Your task to perform on an android device: Open accessibility settings Image 0: 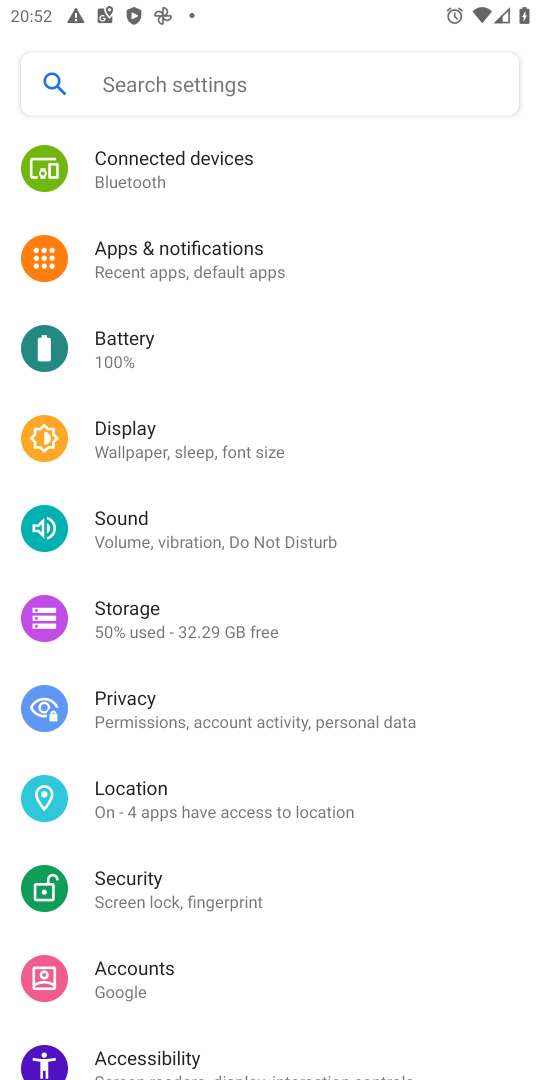
Step 0: press home button
Your task to perform on an android device: Open accessibility settings Image 1: 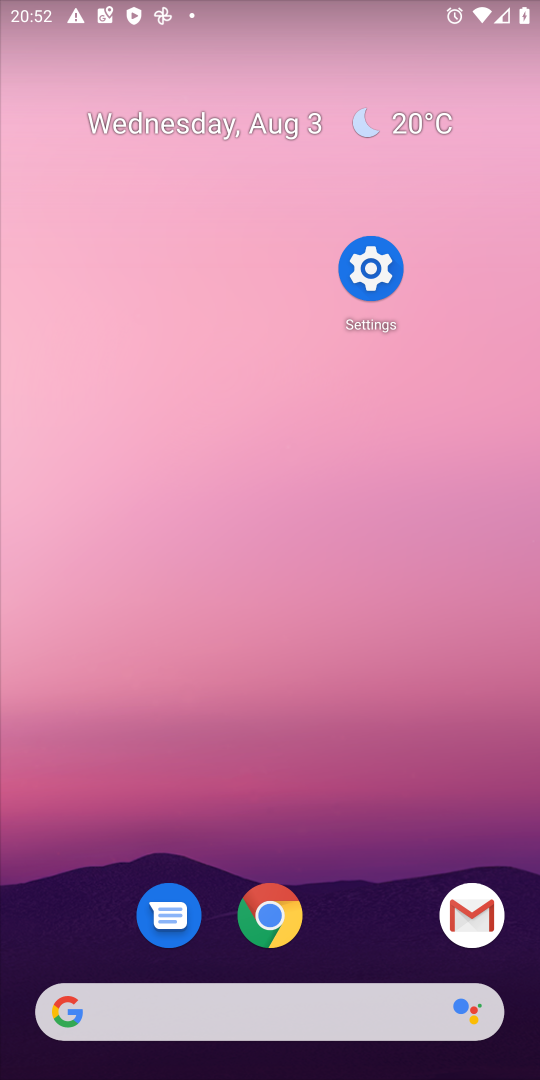
Step 1: drag from (326, 1028) to (345, 167)
Your task to perform on an android device: Open accessibility settings Image 2: 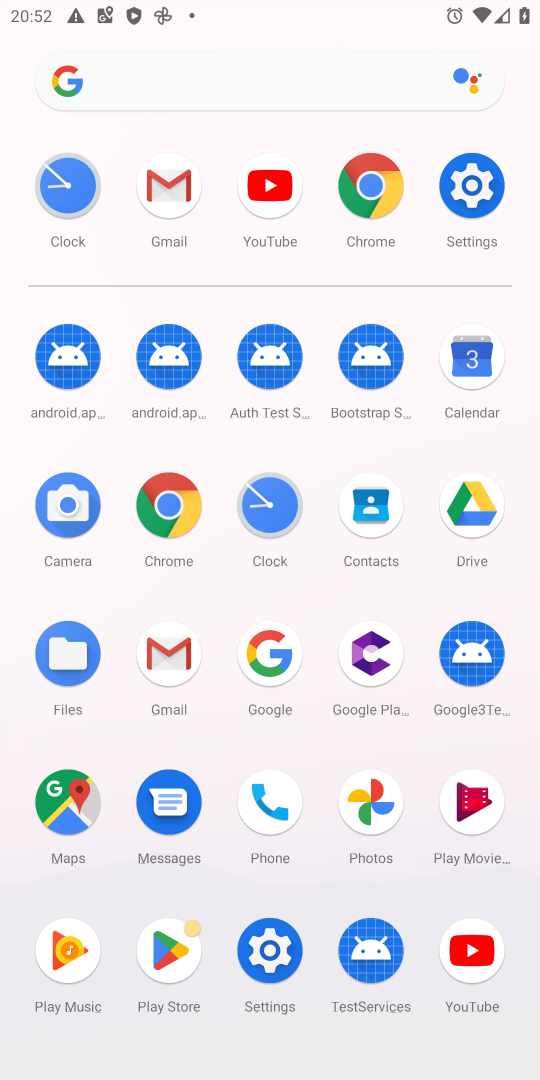
Step 2: click (467, 189)
Your task to perform on an android device: Open accessibility settings Image 3: 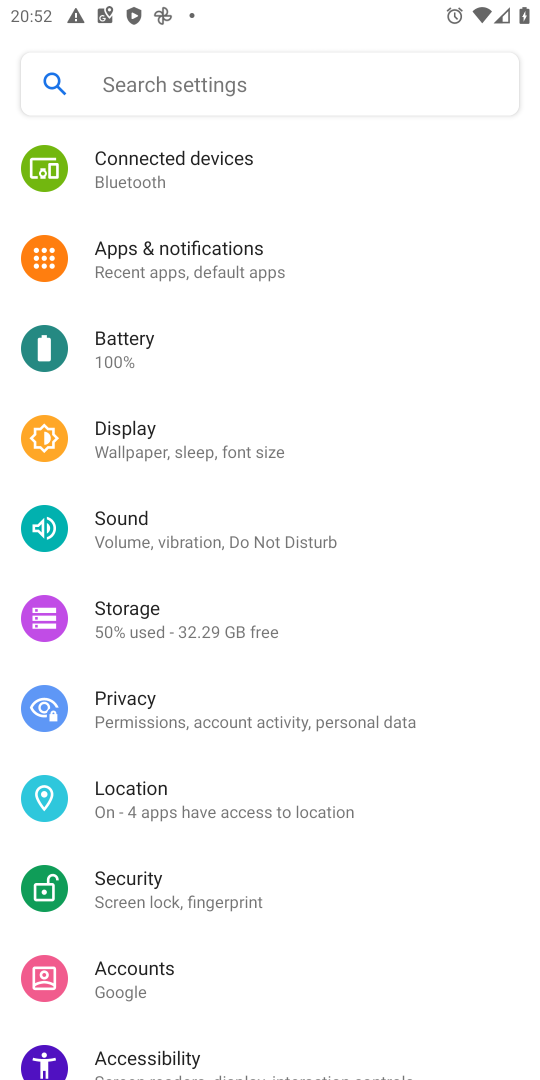
Step 3: click (184, 78)
Your task to perform on an android device: Open accessibility settings Image 4: 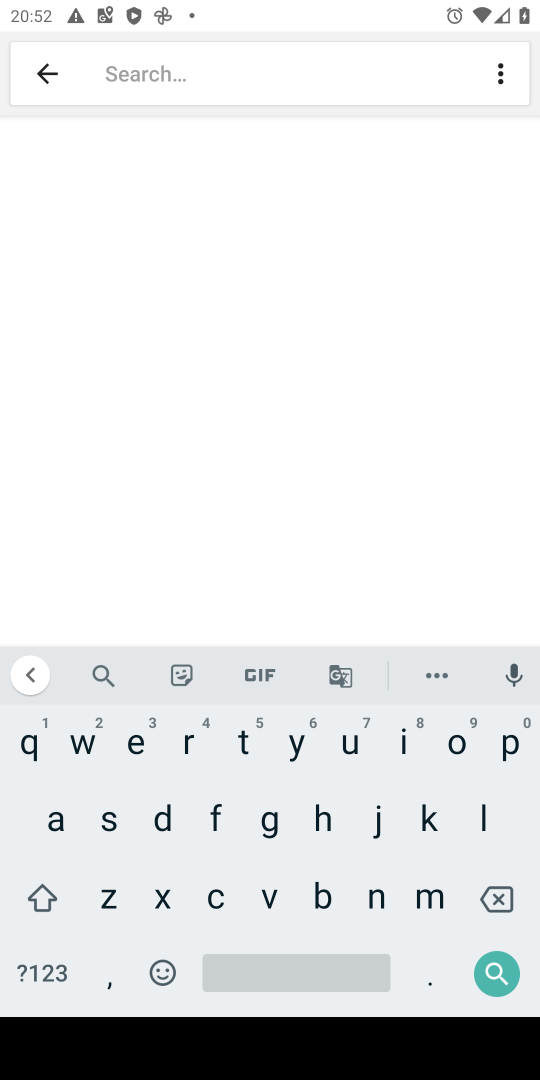
Step 4: click (36, 811)
Your task to perform on an android device: Open accessibility settings Image 5: 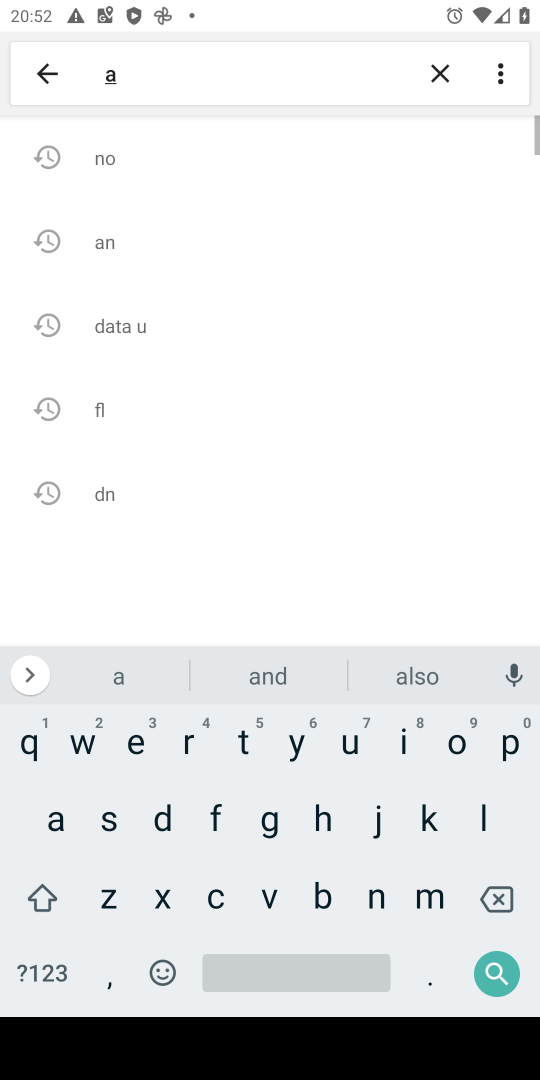
Step 5: click (214, 898)
Your task to perform on an android device: Open accessibility settings Image 6: 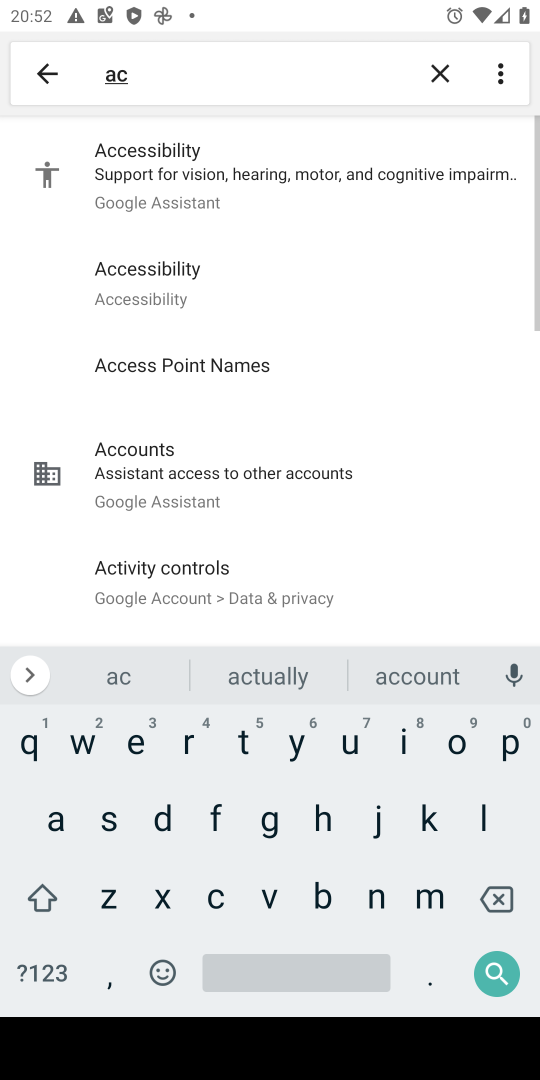
Step 6: click (176, 170)
Your task to perform on an android device: Open accessibility settings Image 7: 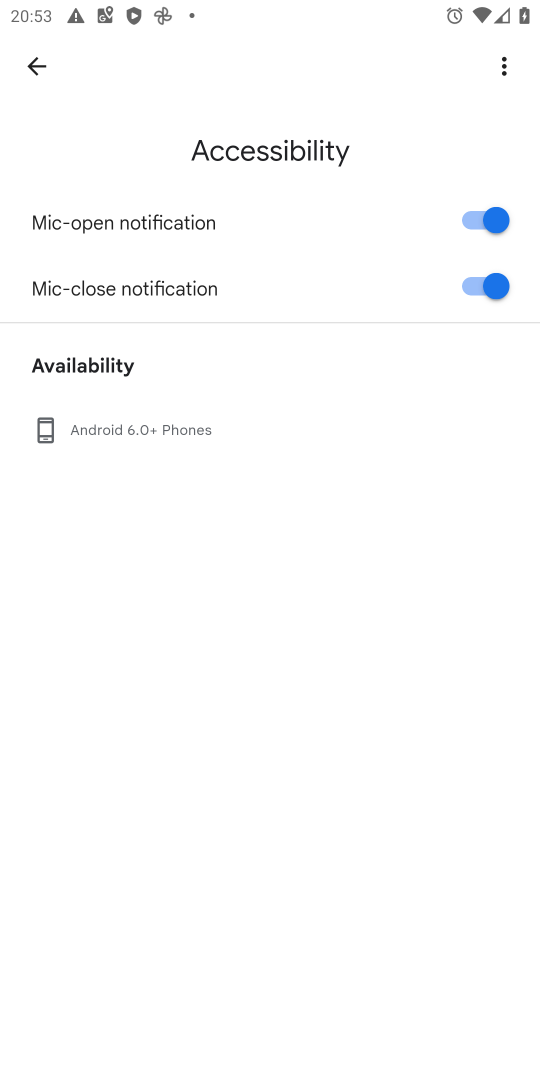
Step 7: task complete